Your task to perform on an android device: Go to display settings Image 0: 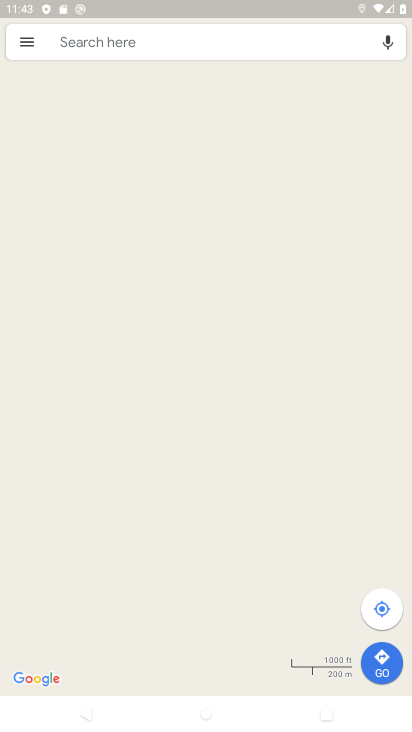
Step 0: press home button
Your task to perform on an android device: Go to display settings Image 1: 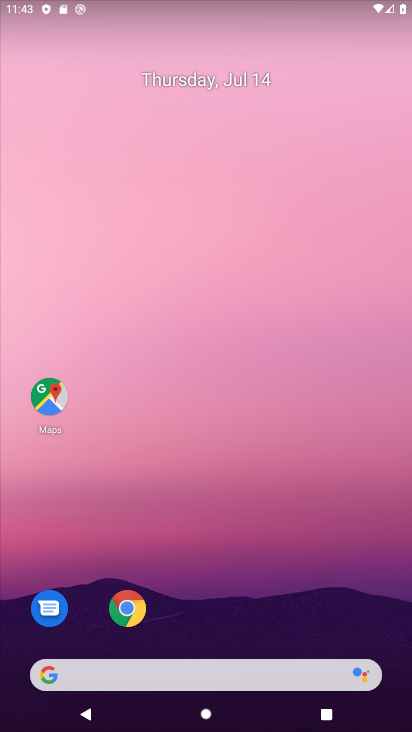
Step 1: drag from (280, 621) to (289, 132)
Your task to perform on an android device: Go to display settings Image 2: 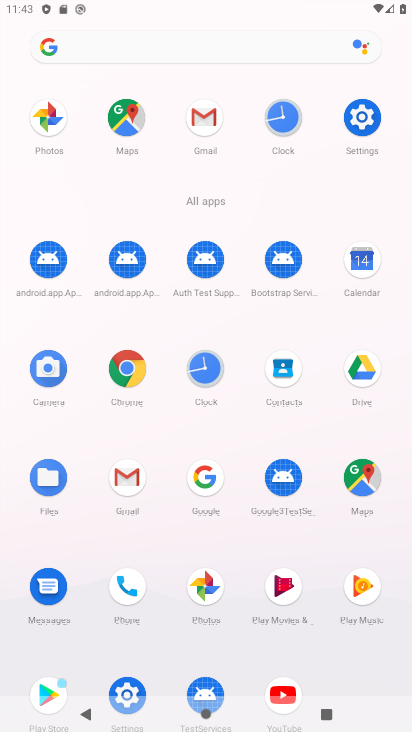
Step 2: click (363, 117)
Your task to perform on an android device: Go to display settings Image 3: 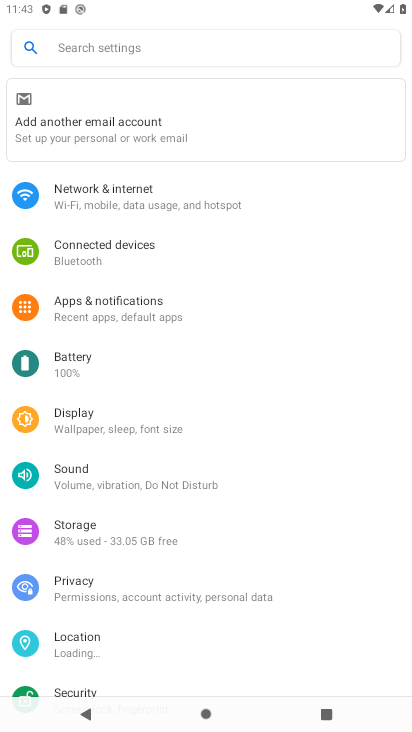
Step 3: click (103, 417)
Your task to perform on an android device: Go to display settings Image 4: 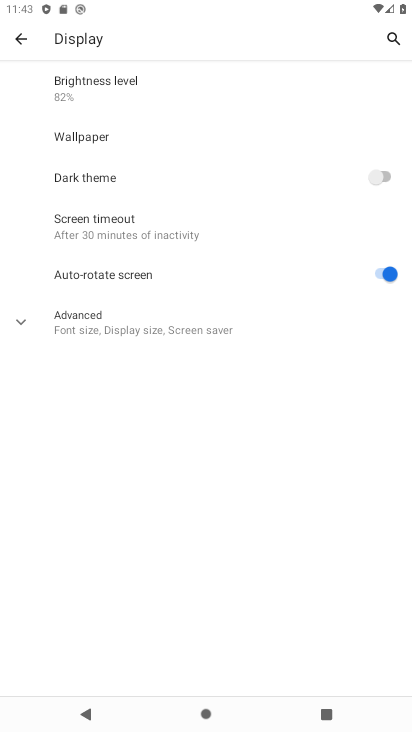
Step 4: task complete